Your task to perform on an android device: Search for seafood restaurants on Google Maps Image 0: 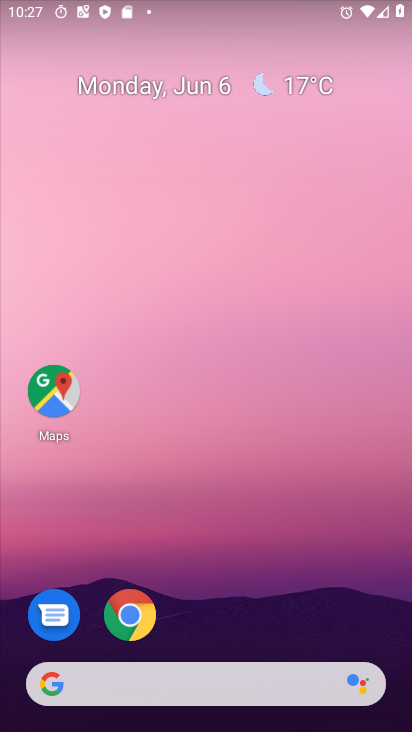
Step 0: press home button
Your task to perform on an android device: Search for seafood restaurants on Google Maps Image 1: 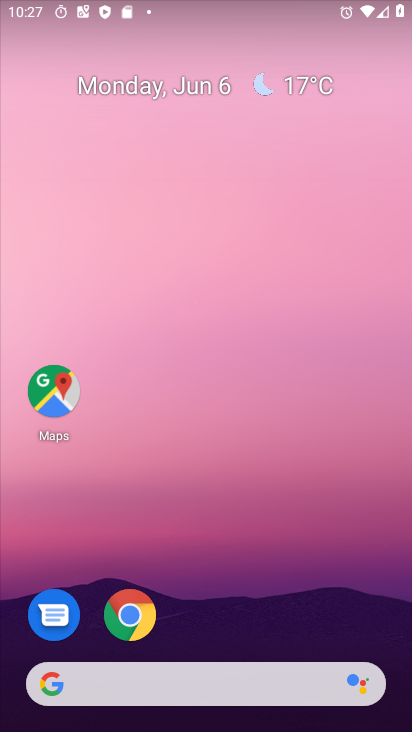
Step 1: click (52, 386)
Your task to perform on an android device: Search for seafood restaurants on Google Maps Image 2: 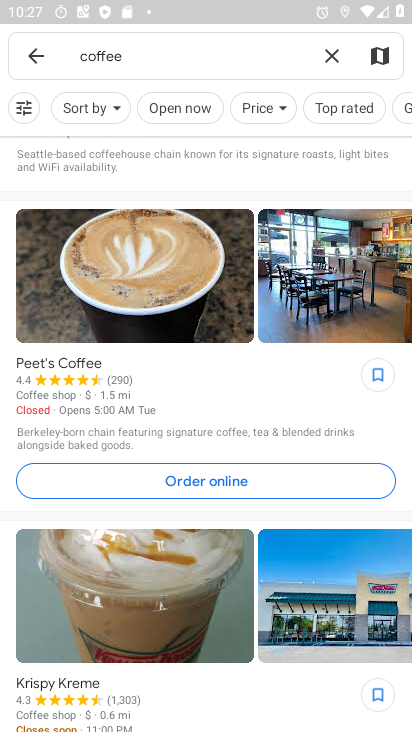
Step 2: click (325, 58)
Your task to perform on an android device: Search for seafood restaurants on Google Maps Image 3: 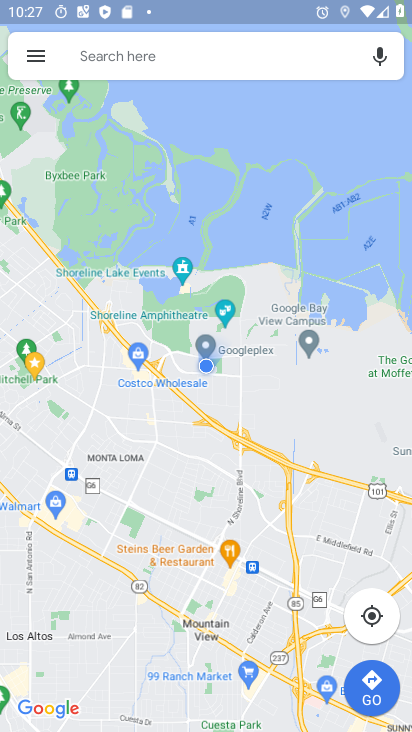
Step 3: click (100, 54)
Your task to perform on an android device: Search for seafood restaurants on Google Maps Image 4: 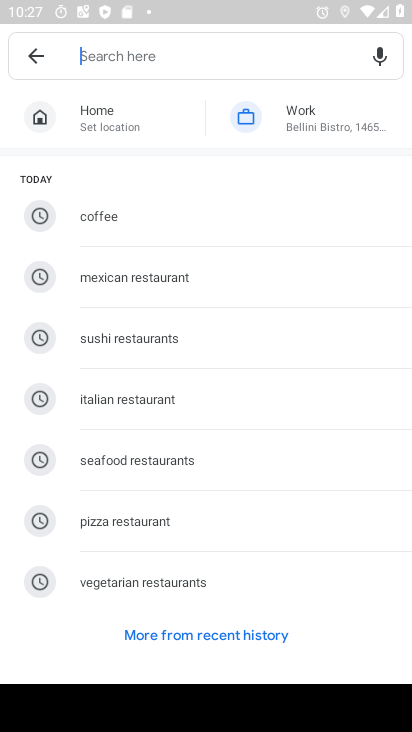
Step 4: click (143, 457)
Your task to perform on an android device: Search for seafood restaurants on Google Maps Image 5: 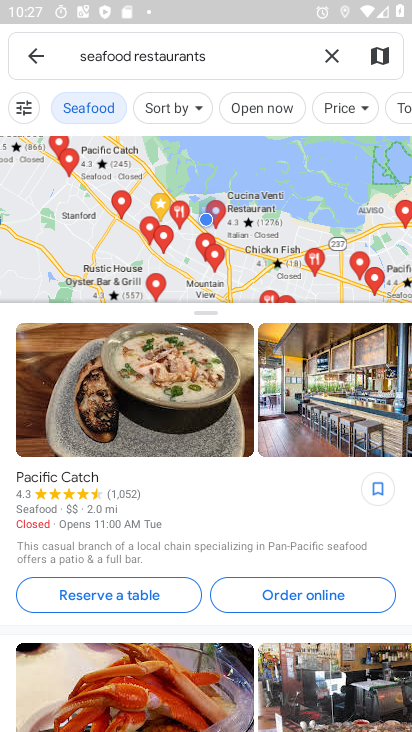
Step 5: task complete